Your task to perform on an android device: What's the weather going to be tomorrow? Image 0: 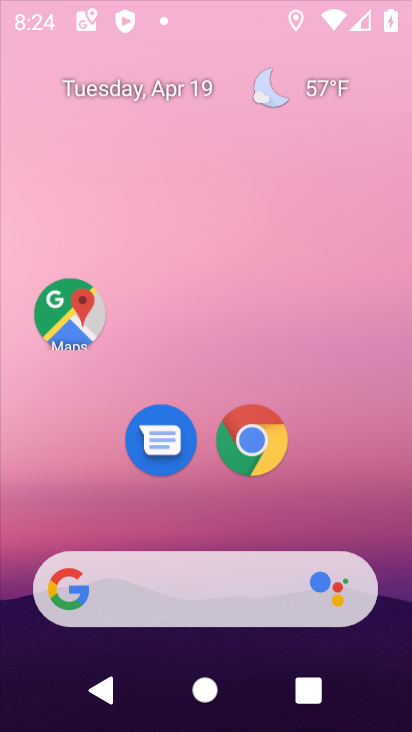
Step 0: click (255, 445)
Your task to perform on an android device: What's the weather going to be tomorrow? Image 1: 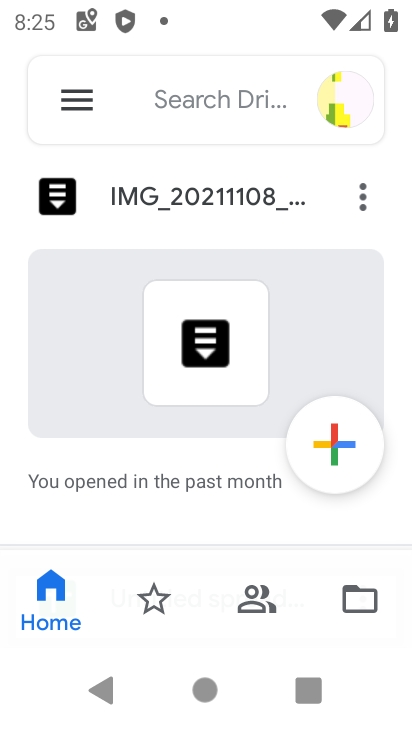
Step 1: press home button
Your task to perform on an android device: What's the weather going to be tomorrow? Image 2: 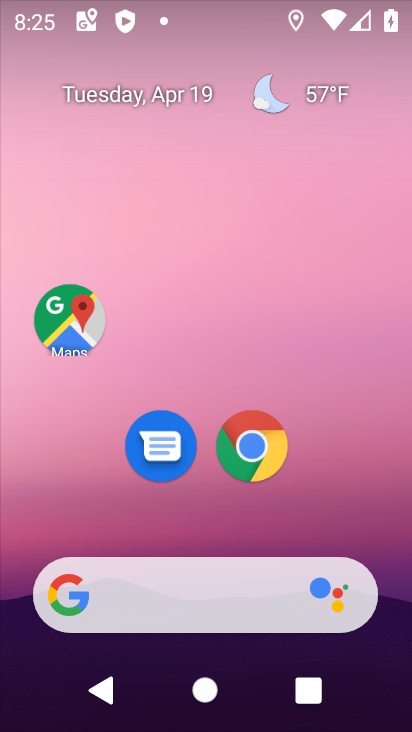
Step 2: click (261, 438)
Your task to perform on an android device: What's the weather going to be tomorrow? Image 3: 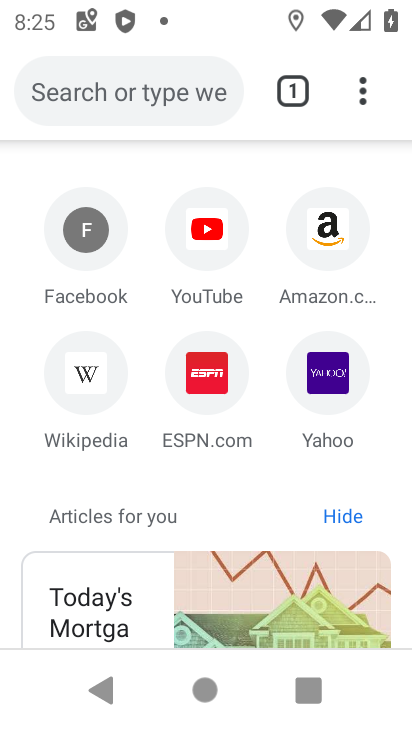
Step 3: click (189, 93)
Your task to perform on an android device: What's the weather going to be tomorrow? Image 4: 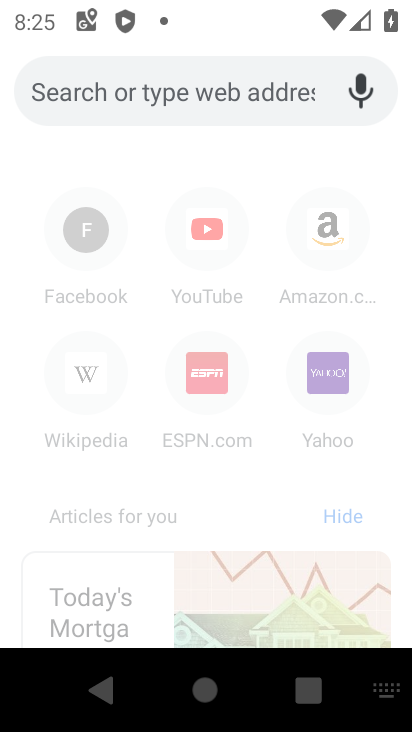
Step 4: type "whats the weather going to be tomorrow"
Your task to perform on an android device: What's the weather going to be tomorrow? Image 5: 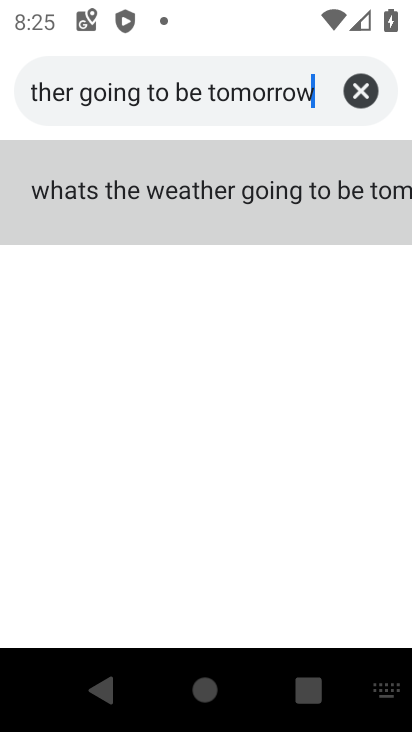
Step 5: click (259, 196)
Your task to perform on an android device: What's the weather going to be tomorrow? Image 6: 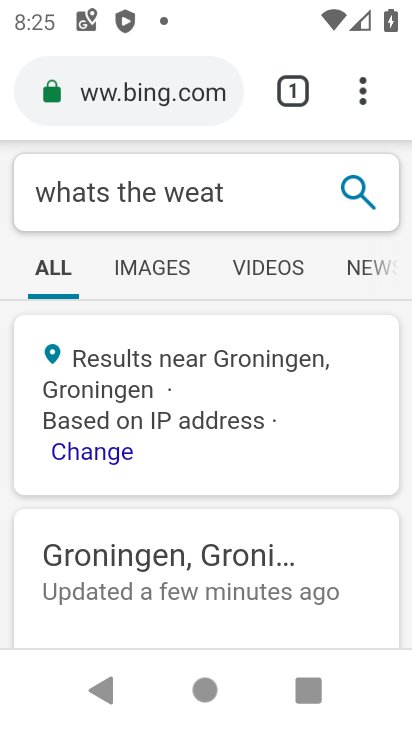
Step 6: task complete